Your task to perform on an android device: change the upload size in google photos Image 0: 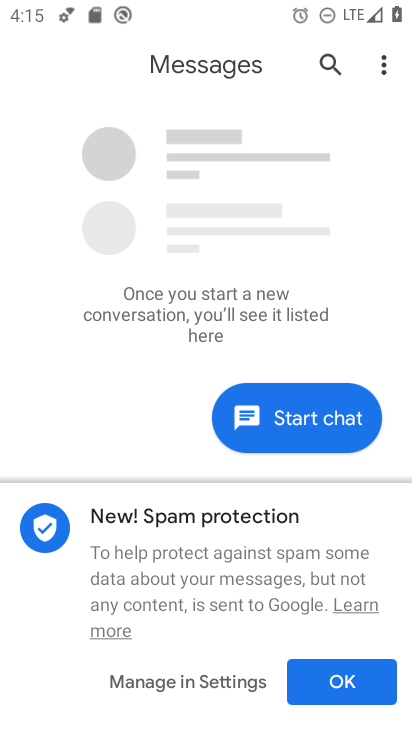
Step 0: press home button
Your task to perform on an android device: change the upload size in google photos Image 1: 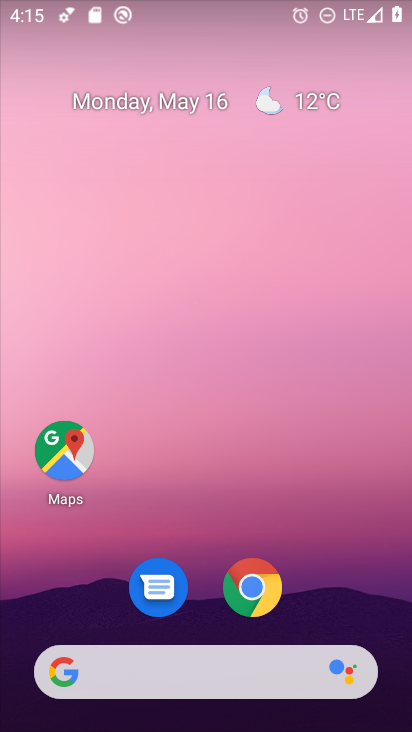
Step 1: drag from (386, 690) to (344, 334)
Your task to perform on an android device: change the upload size in google photos Image 2: 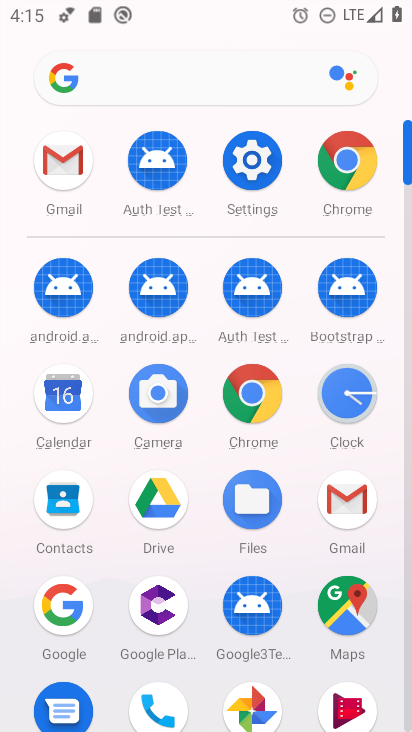
Step 2: click (251, 695)
Your task to perform on an android device: change the upload size in google photos Image 3: 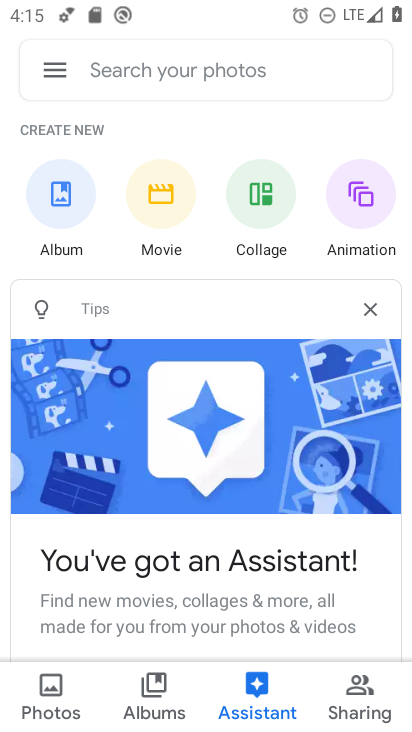
Step 3: click (47, 74)
Your task to perform on an android device: change the upload size in google photos Image 4: 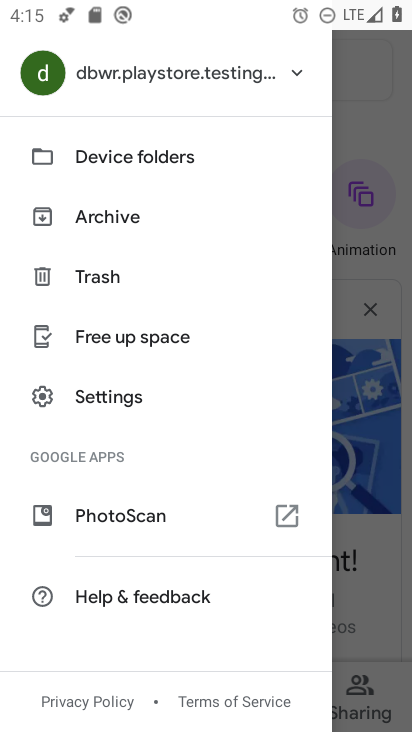
Step 4: drag from (232, 429) to (230, 276)
Your task to perform on an android device: change the upload size in google photos Image 5: 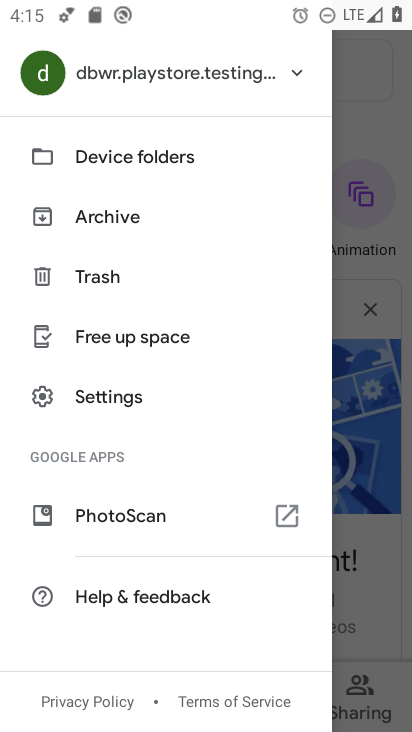
Step 5: click (113, 388)
Your task to perform on an android device: change the upload size in google photos Image 6: 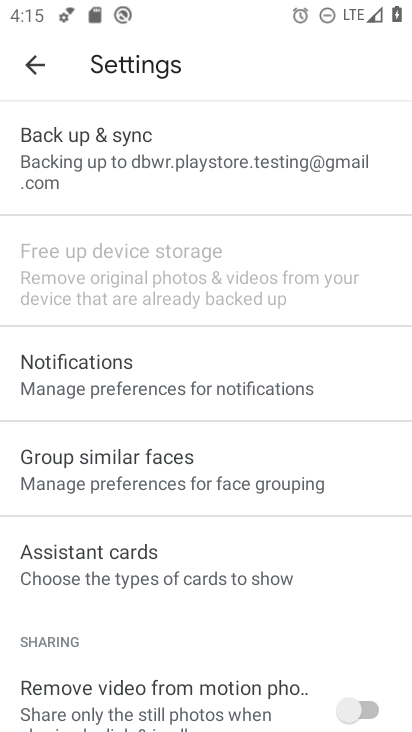
Step 6: click (85, 149)
Your task to perform on an android device: change the upload size in google photos Image 7: 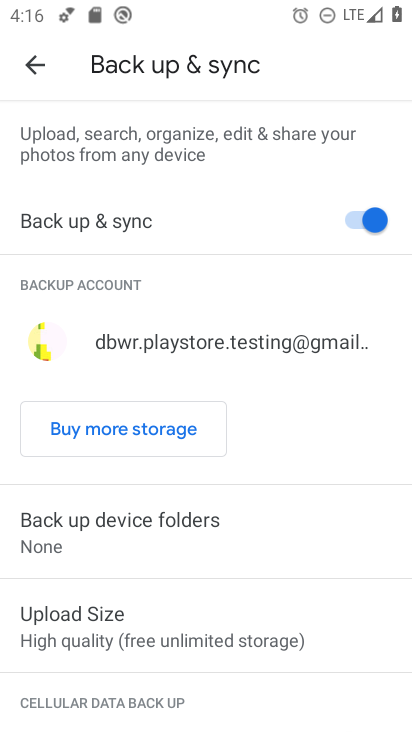
Step 7: click (90, 625)
Your task to perform on an android device: change the upload size in google photos Image 8: 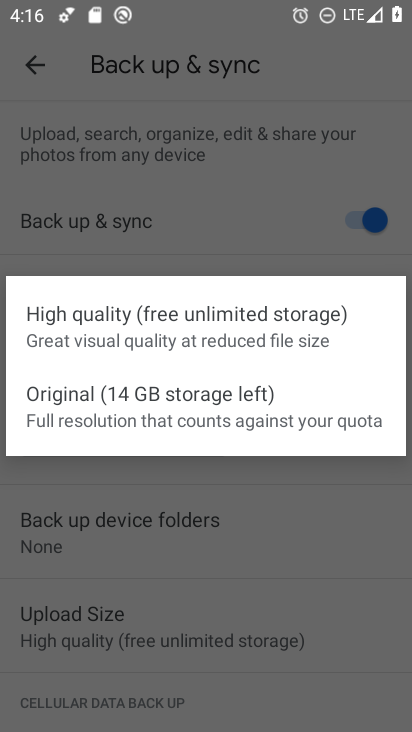
Step 8: click (65, 307)
Your task to perform on an android device: change the upload size in google photos Image 9: 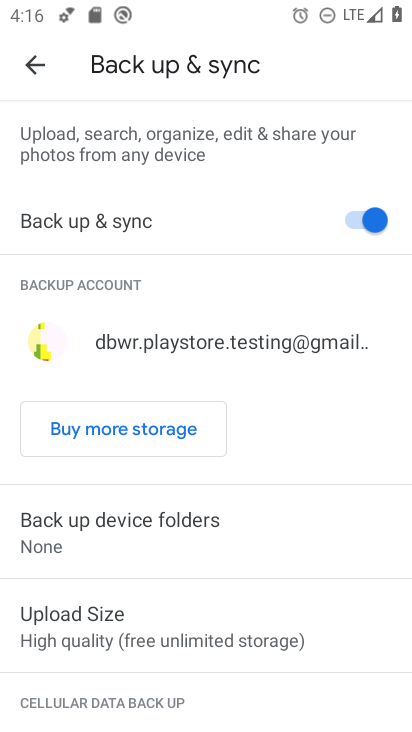
Step 9: click (77, 618)
Your task to perform on an android device: change the upload size in google photos Image 10: 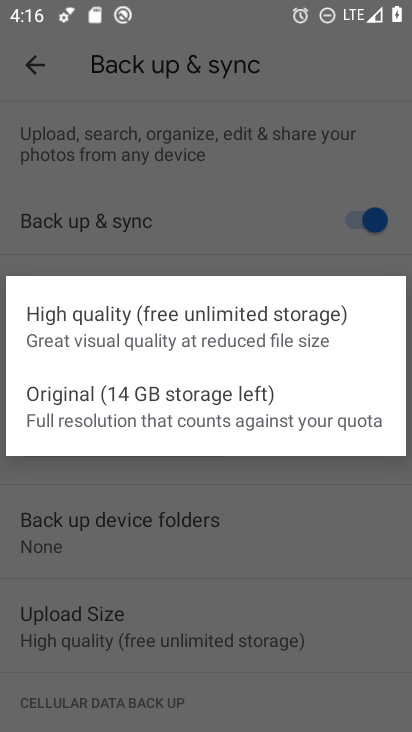
Step 10: click (100, 410)
Your task to perform on an android device: change the upload size in google photos Image 11: 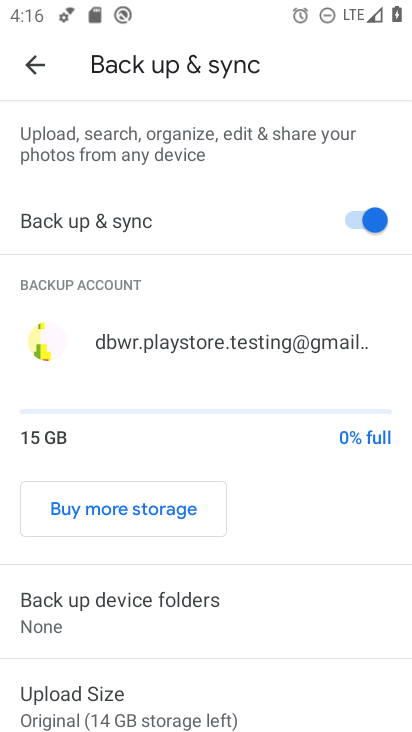
Step 11: task complete